Your task to perform on an android device: open the mobile data screen to see how much data has been used Image 0: 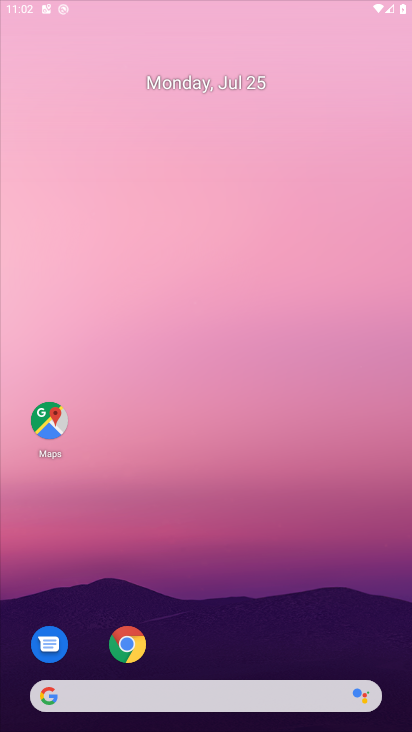
Step 0: press home button
Your task to perform on an android device: open the mobile data screen to see how much data has been used Image 1: 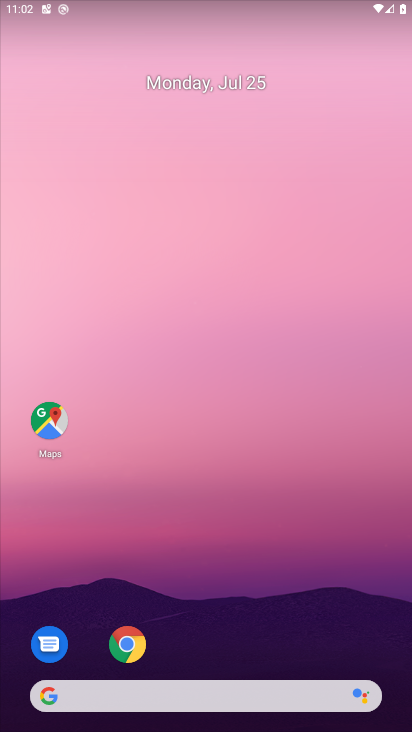
Step 1: drag from (356, 19) to (166, 679)
Your task to perform on an android device: open the mobile data screen to see how much data has been used Image 2: 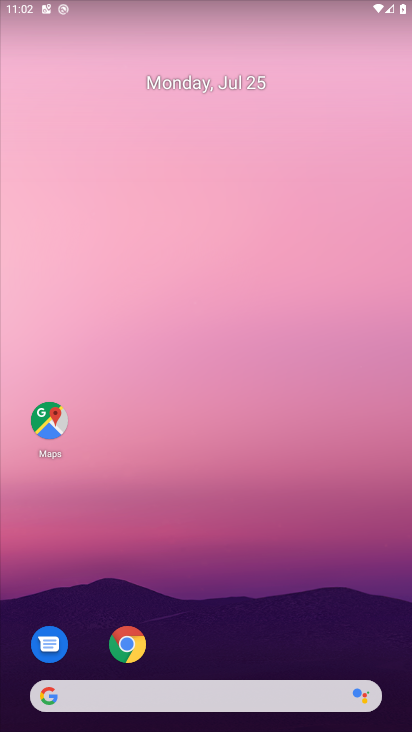
Step 2: drag from (372, 17) to (267, 632)
Your task to perform on an android device: open the mobile data screen to see how much data has been used Image 3: 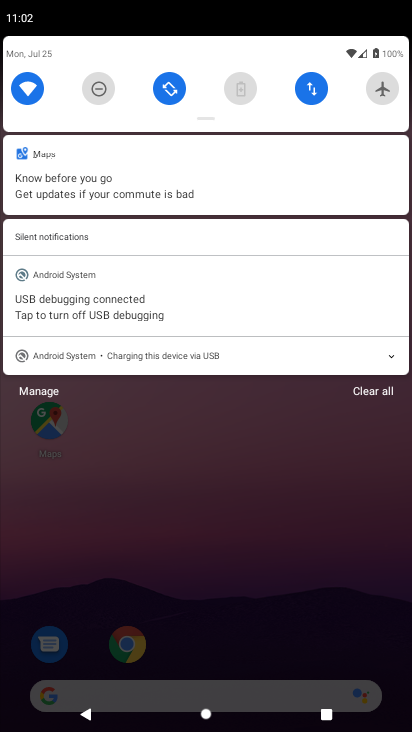
Step 3: click (309, 79)
Your task to perform on an android device: open the mobile data screen to see how much data has been used Image 4: 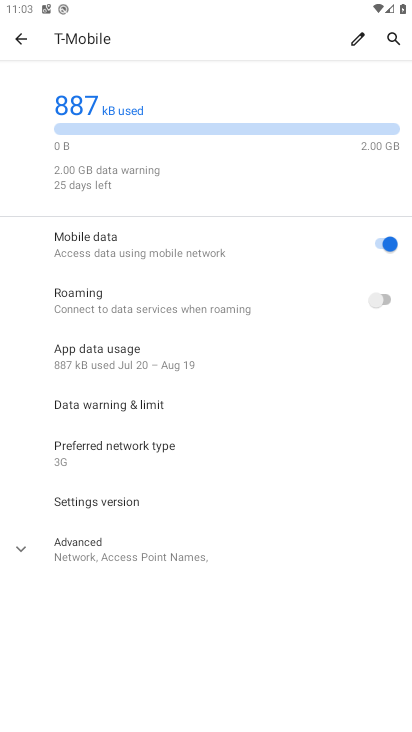
Step 4: task complete